Your task to perform on an android device: open chrome privacy settings Image 0: 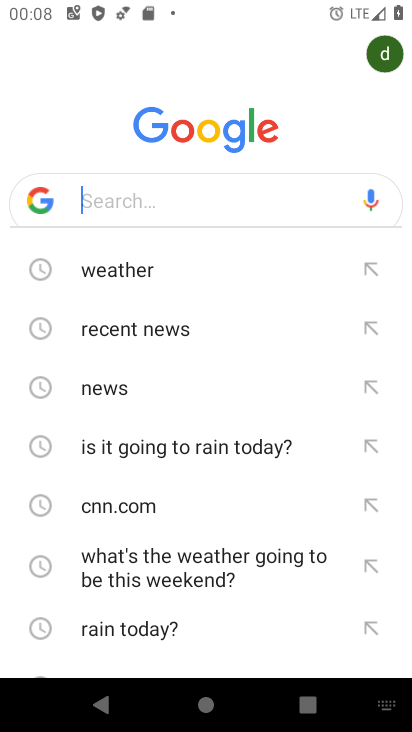
Step 0: press home button
Your task to perform on an android device: open chrome privacy settings Image 1: 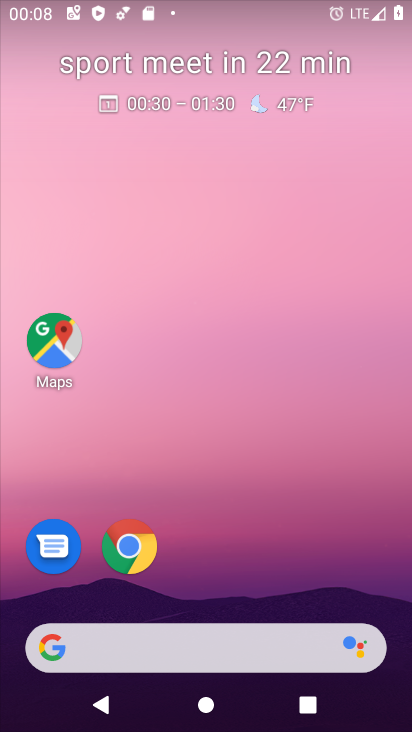
Step 1: click (132, 547)
Your task to perform on an android device: open chrome privacy settings Image 2: 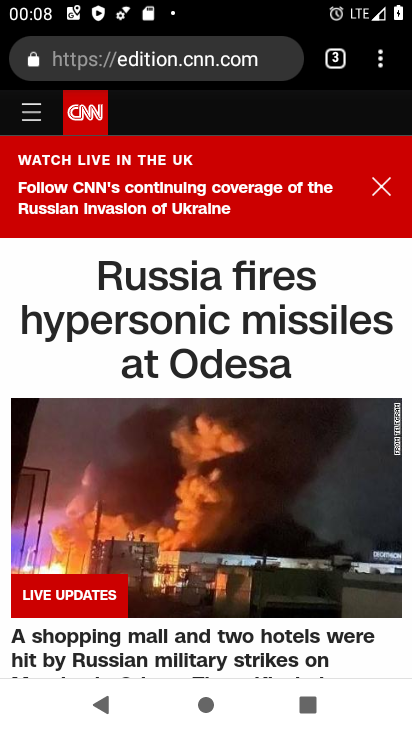
Step 2: drag from (382, 63) to (169, 579)
Your task to perform on an android device: open chrome privacy settings Image 3: 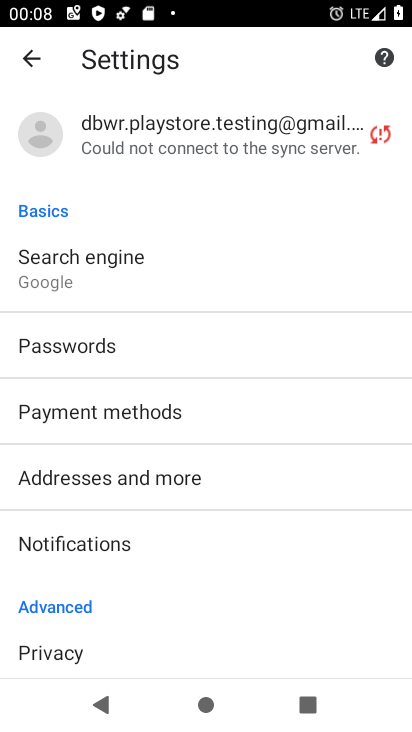
Step 3: click (46, 657)
Your task to perform on an android device: open chrome privacy settings Image 4: 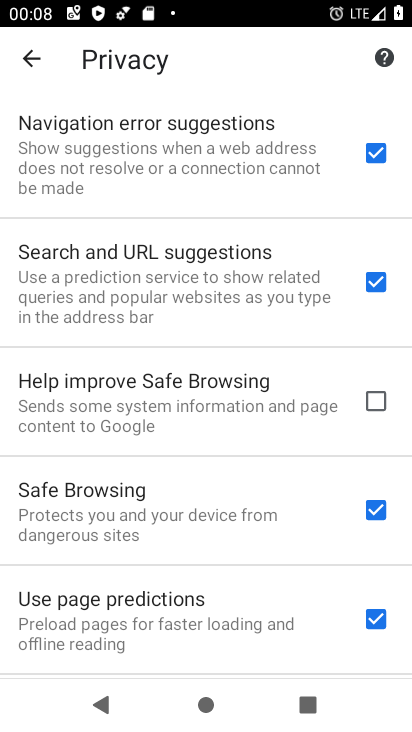
Step 4: task complete